Your task to perform on an android device: open app "Spotify: Music and Podcasts" (install if not already installed), go to login, and select forgot password Image 0: 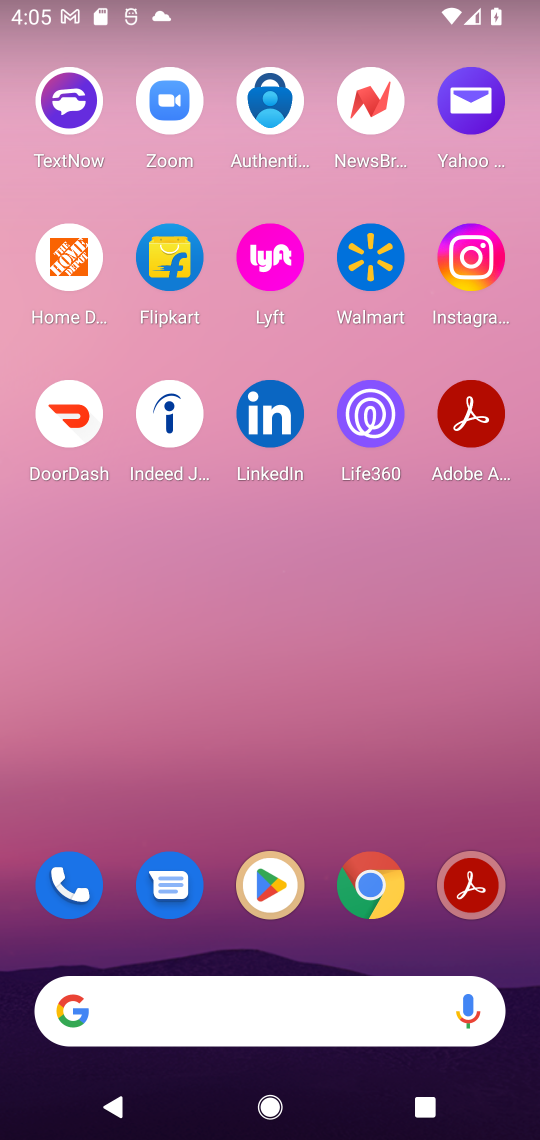
Step 0: press home button
Your task to perform on an android device: open app "Spotify: Music and Podcasts" (install if not already installed), go to login, and select forgot password Image 1: 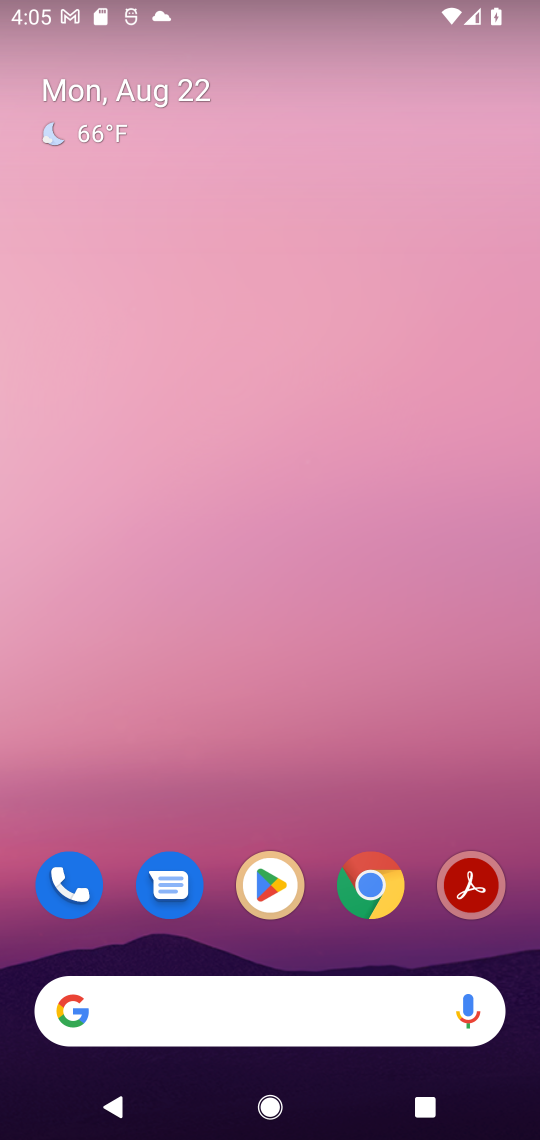
Step 1: click (265, 878)
Your task to perform on an android device: open app "Spotify: Music and Podcasts" (install if not already installed), go to login, and select forgot password Image 2: 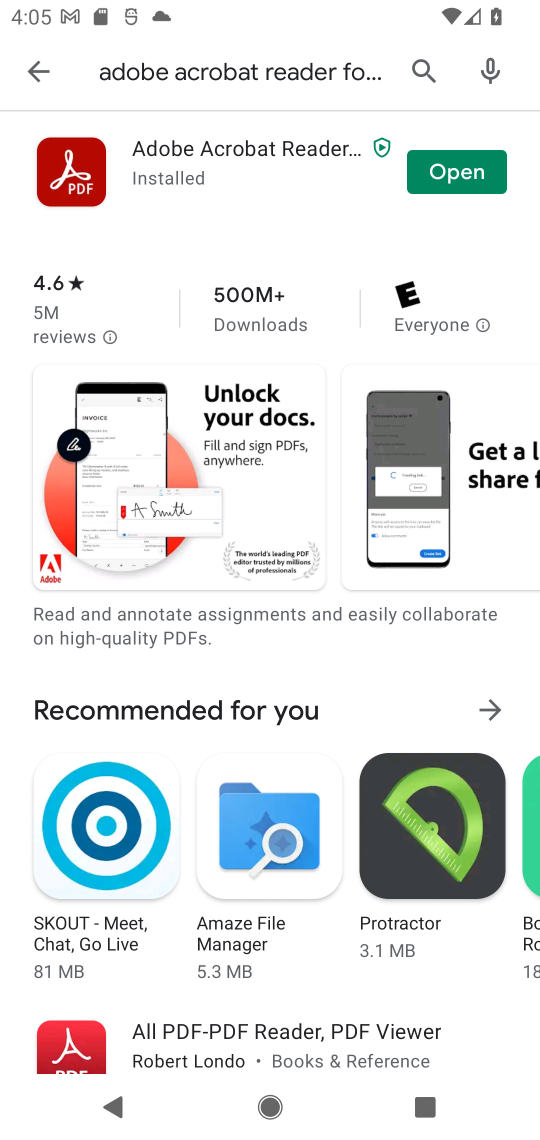
Step 2: click (417, 65)
Your task to perform on an android device: open app "Spotify: Music and Podcasts" (install if not already installed), go to login, and select forgot password Image 3: 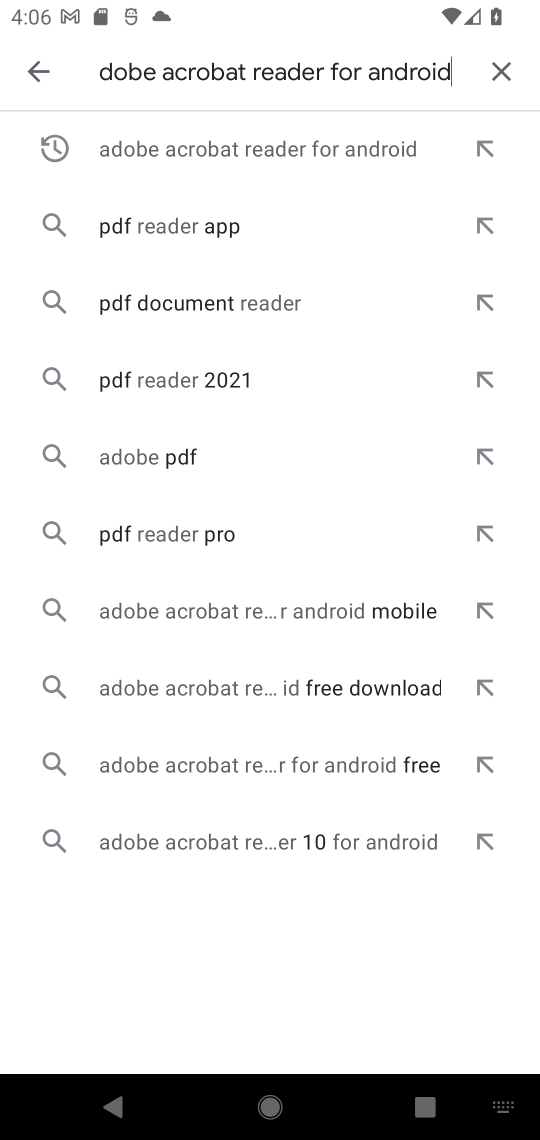
Step 3: click (256, 159)
Your task to perform on an android device: open app "Spotify: Music and Podcasts" (install if not already installed), go to login, and select forgot password Image 4: 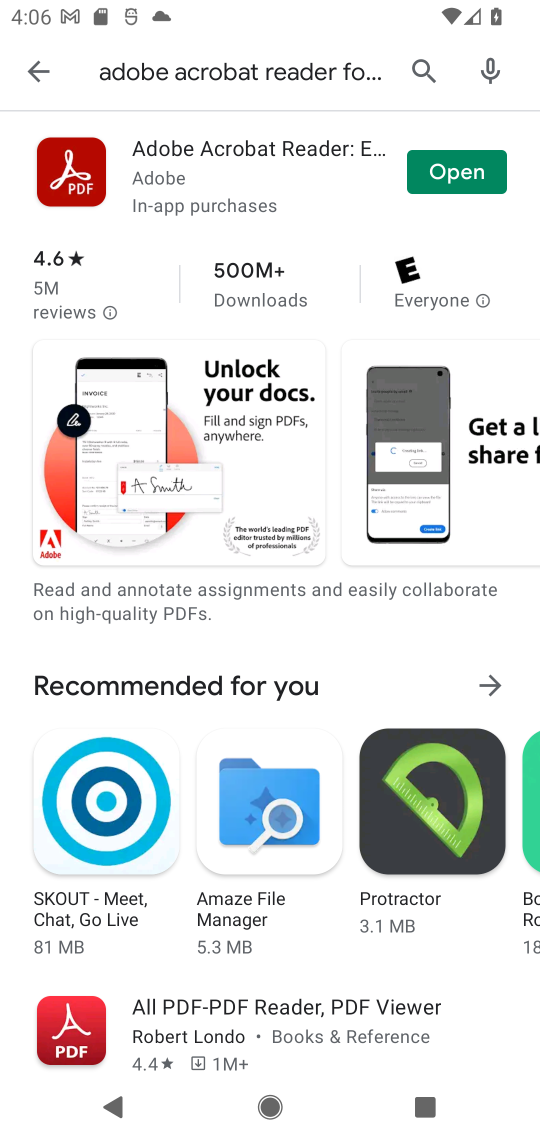
Step 4: type "Spotify: Music and Podcasts"
Your task to perform on an android device: open app "Spotify: Music and Podcasts" (install if not already installed), go to login, and select forgot password Image 5: 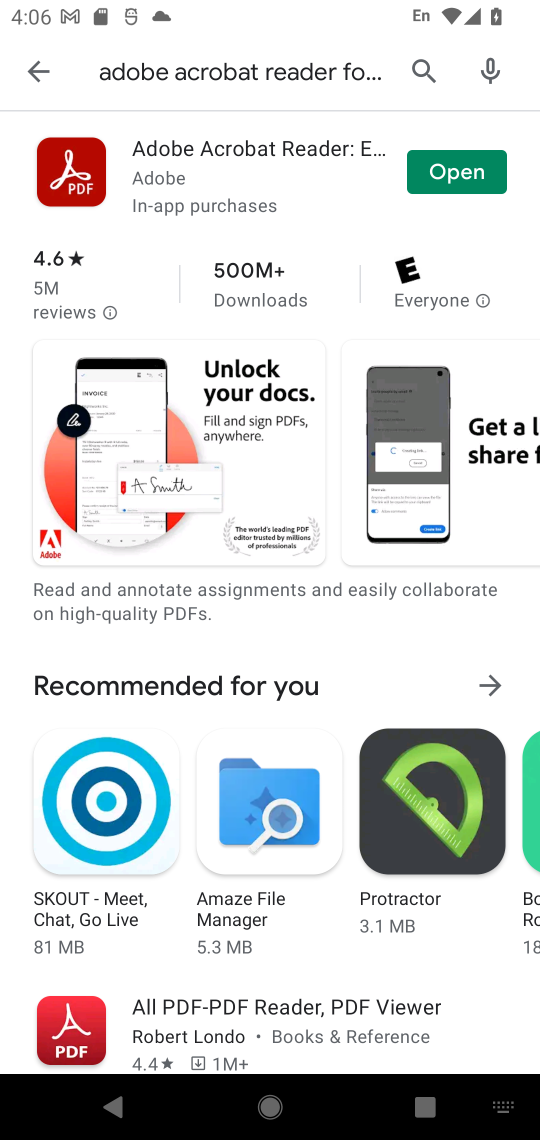
Step 5: type "Spotify: Music and Podcasts"
Your task to perform on an android device: open app "Spotify: Music and Podcasts" (install if not already installed), go to login, and select forgot password Image 6: 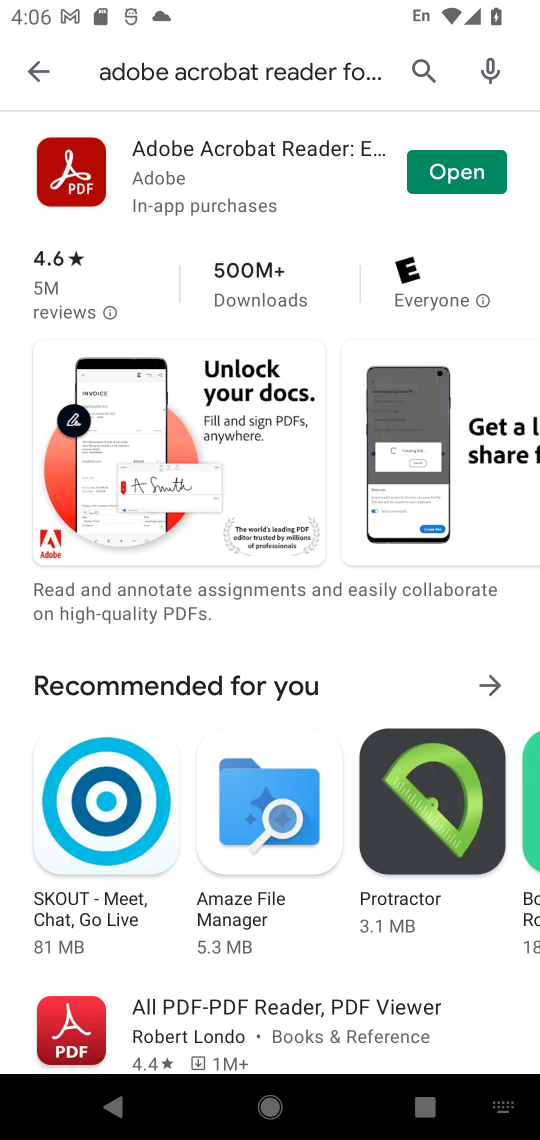
Step 6: click (409, 66)
Your task to perform on an android device: open app "Spotify: Music and Podcasts" (install if not already installed), go to login, and select forgot password Image 7: 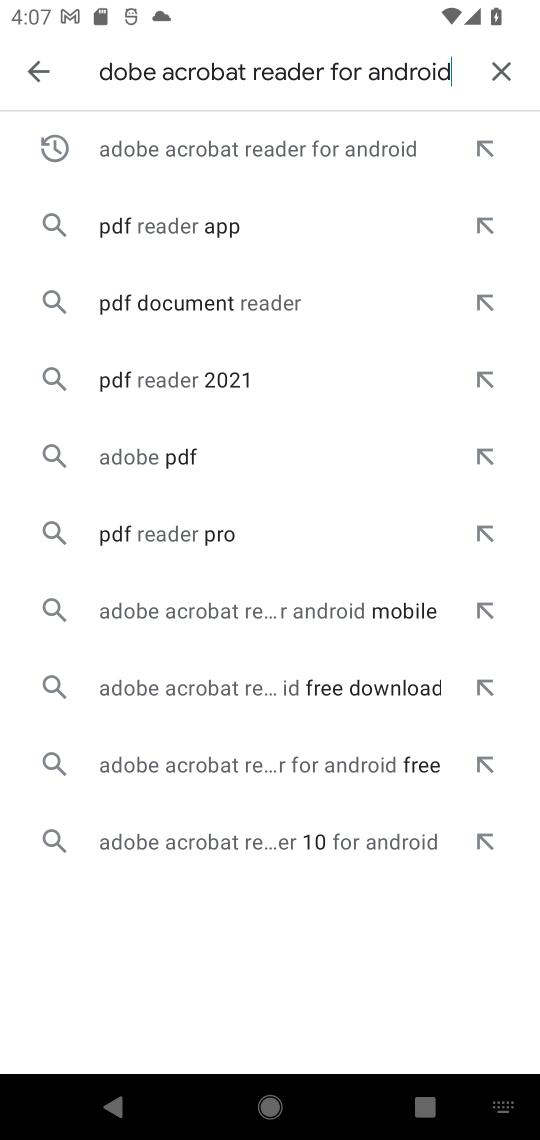
Step 7: click (500, 68)
Your task to perform on an android device: open app "Spotify: Music and Podcasts" (install if not already installed), go to login, and select forgot password Image 8: 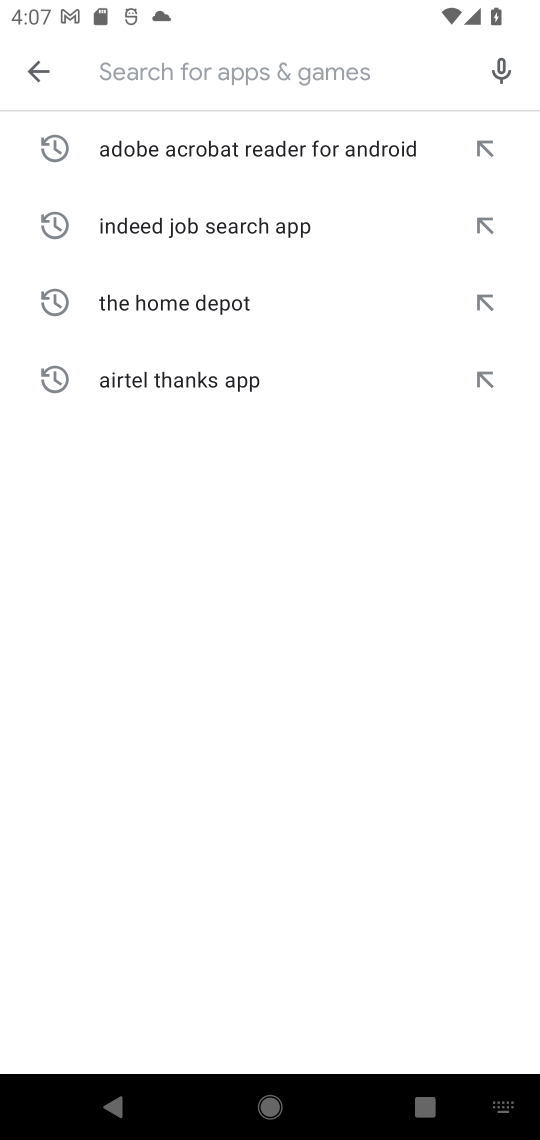
Step 8: type "Spotify: Music and Podcasts"
Your task to perform on an android device: open app "Spotify: Music and Podcasts" (install if not already installed), go to login, and select forgot password Image 9: 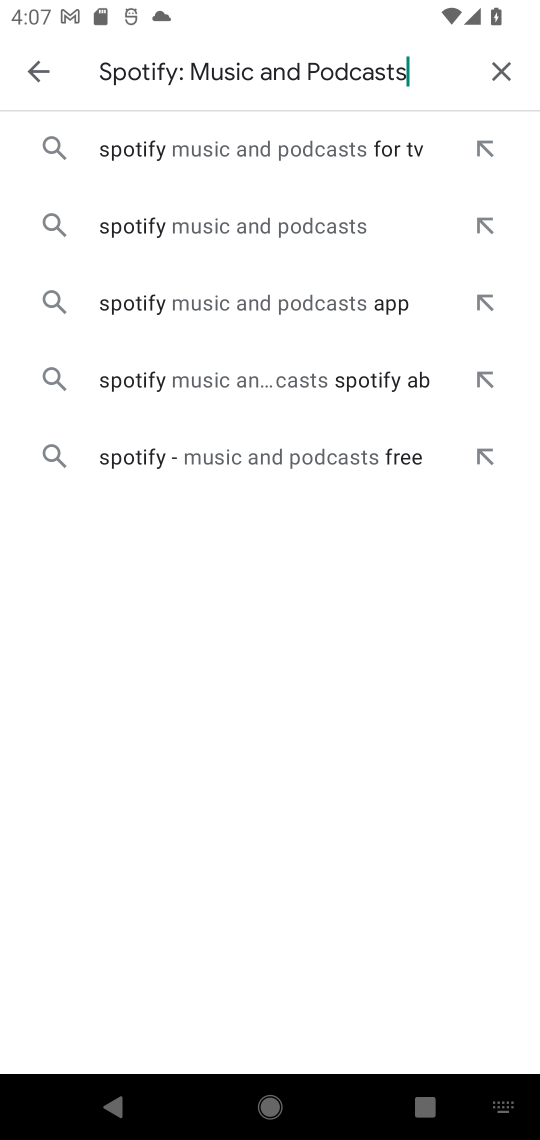
Step 9: click (292, 229)
Your task to perform on an android device: open app "Spotify: Music and Podcasts" (install if not already installed), go to login, and select forgot password Image 10: 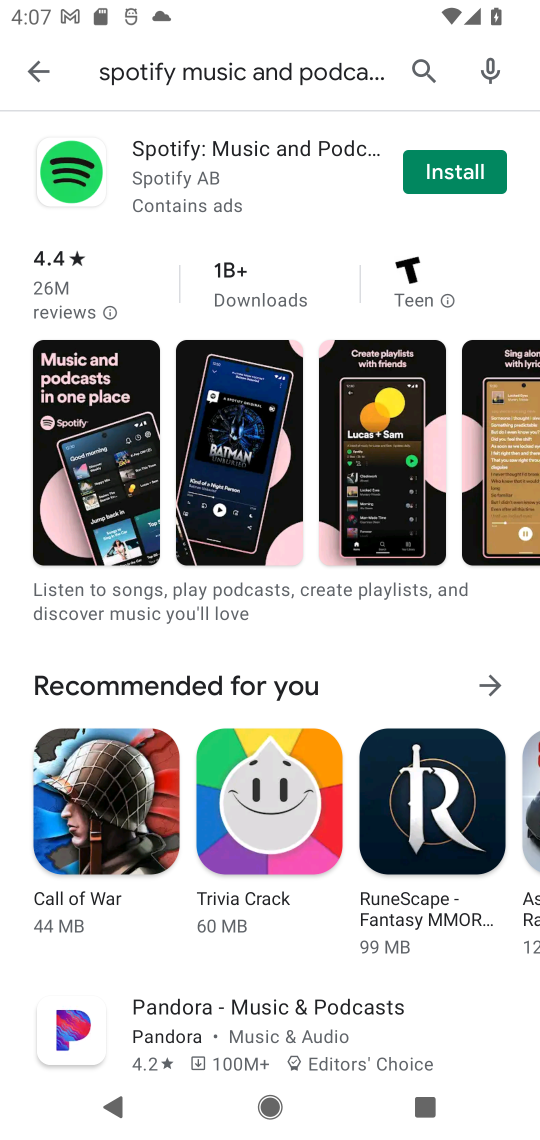
Step 10: click (467, 165)
Your task to perform on an android device: open app "Spotify: Music and Podcasts" (install if not already installed), go to login, and select forgot password Image 11: 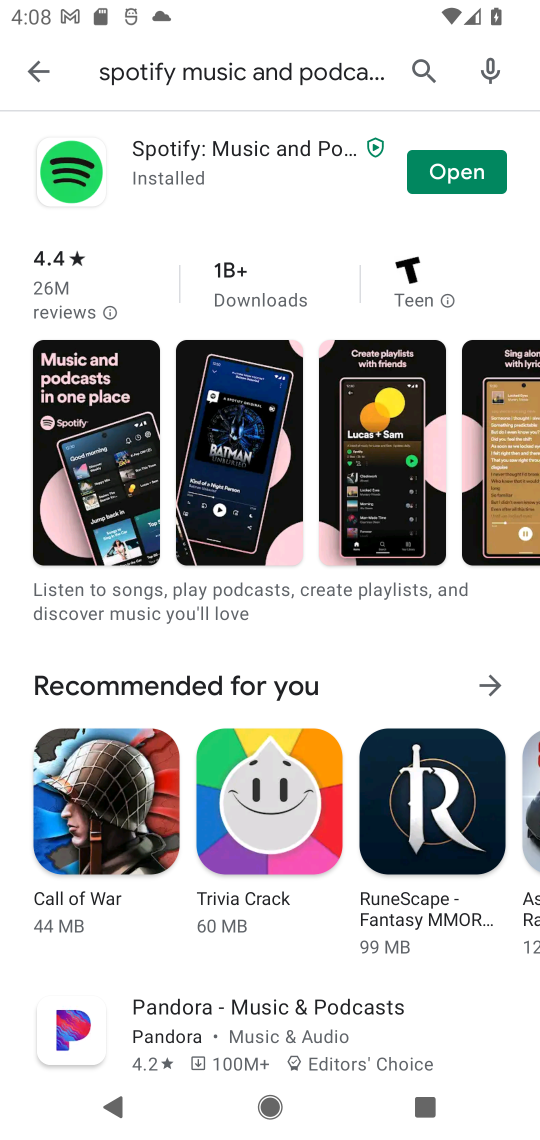
Step 11: click (465, 163)
Your task to perform on an android device: open app "Spotify: Music and Podcasts" (install if not already installed), go to login, and select forgot password Image 12: 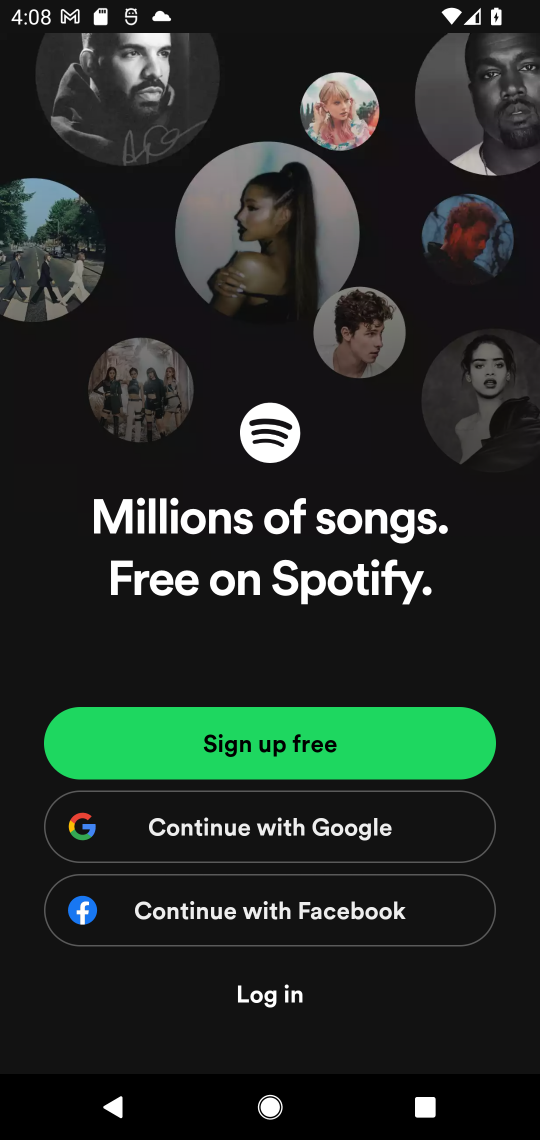
Step 12: click (266, 999)
Your task to perform on an android device: open app "Spotify: Music and Podcasts" (install if not already installed), go to login, and select forgot password Image 13: 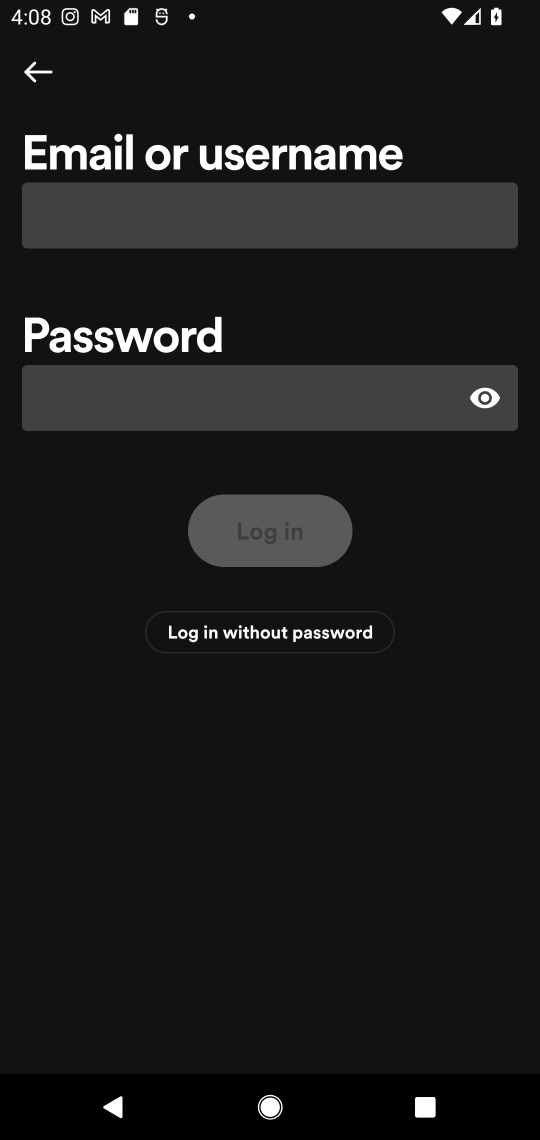
Step 13: click (313, 635)
Your task to perform on an android device: open app "Spotify: Music and Podcasts" (install if not already installed), go to login, and select forgot password Image 14: 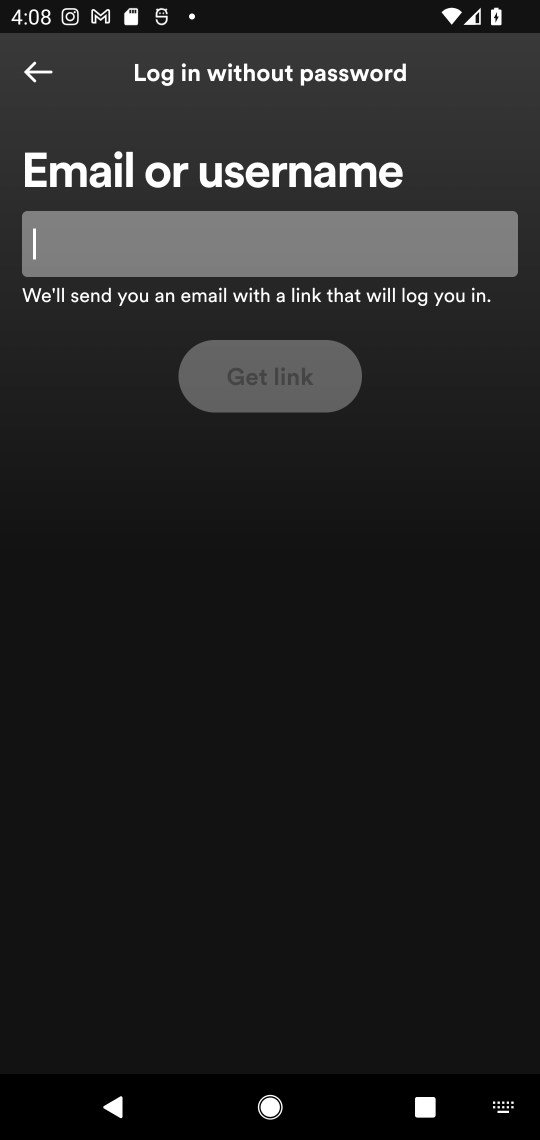
Step 14: task complete